Your task to perform on an android device: check the backup settings in the google photos Image 0: 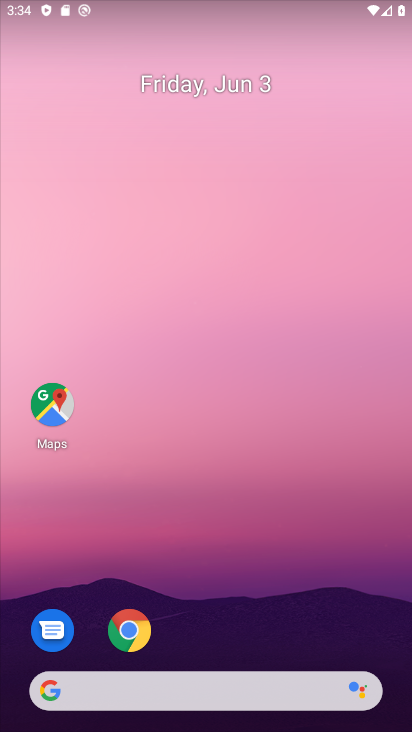
Step 0: drag from (320, 626) to (363, 135)
Your task to perform on an android device: check the backup settings in the google photos Image 1: 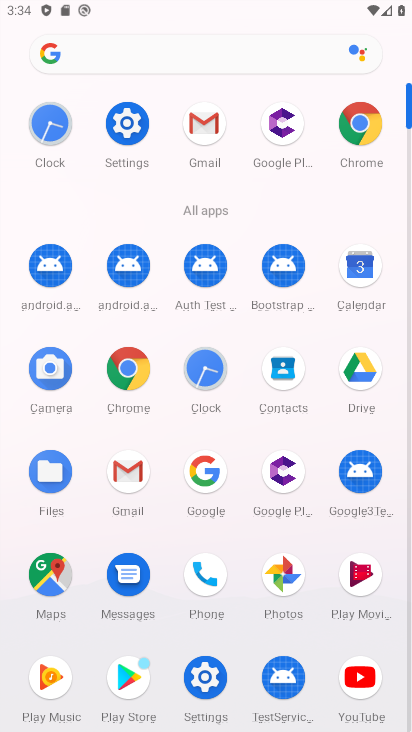
Step 1: click (283, 569)
Your task to perform on an android device: check the backup settings in the google photos Image 2: 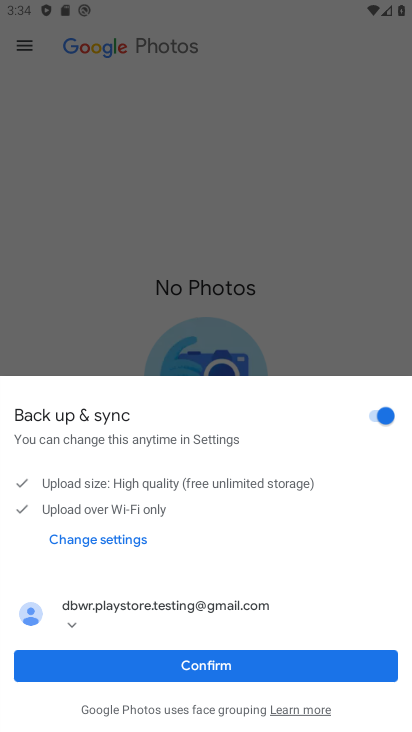
Step 2: click (209, 667)
Your task to perform on an android device: check the backup settings in the google photos Image 3: 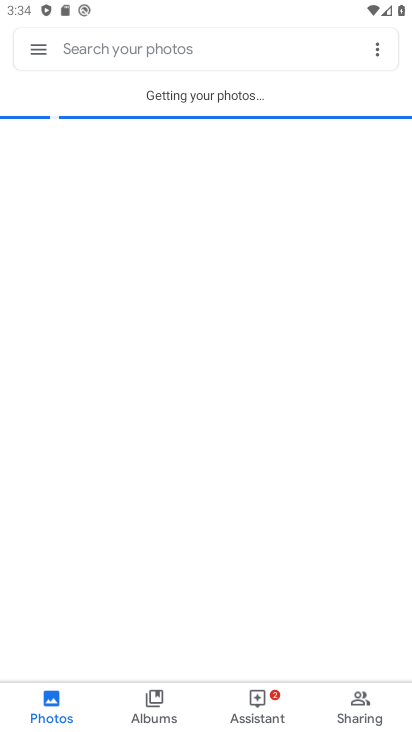
Step 3: click (43, 46)
Your task to perform on an android device: check the backup settings in the google photos Image 4: 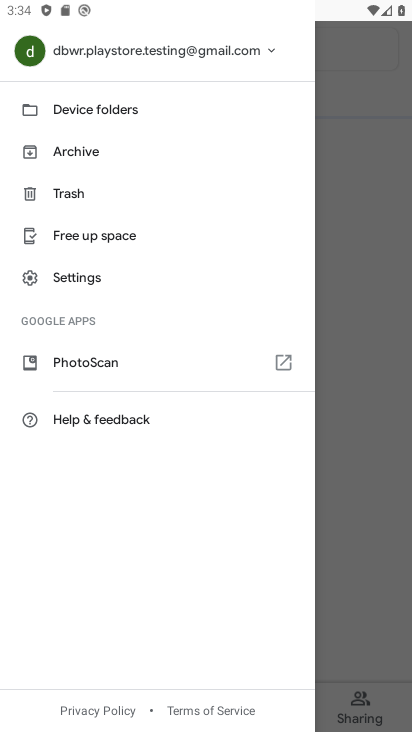
Step 4: click (81, 273)
Your task to perform on an android device: check the backup settings in the google photos Image 5: 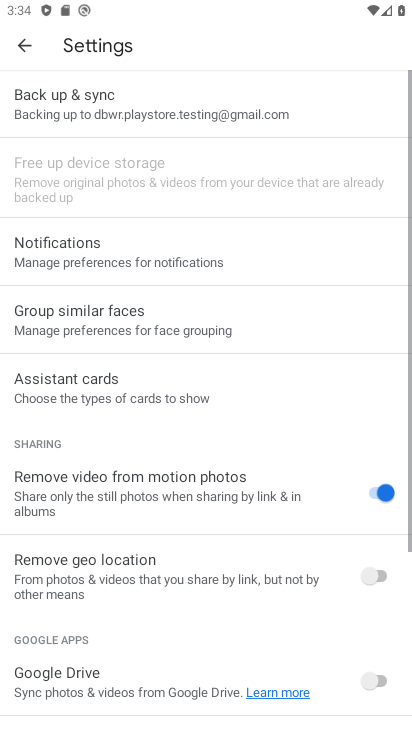
Step 5: click (105, 96)
Your task to perform on an android device: check the backup settings in the google photos Image 6: 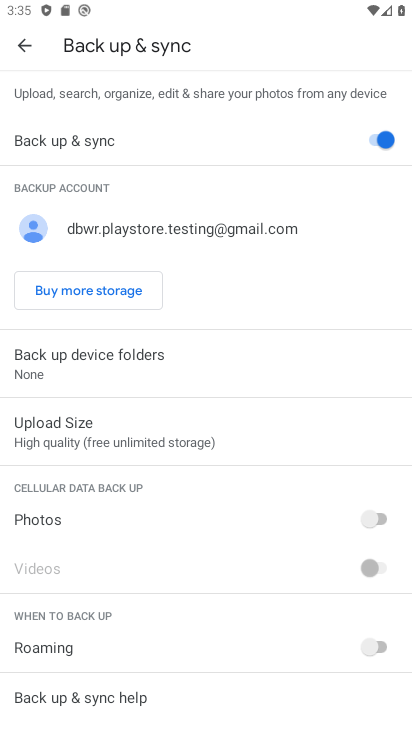
Step 6: task complete